Your task to perform on an android device: Go to Wikipedia Image 0: 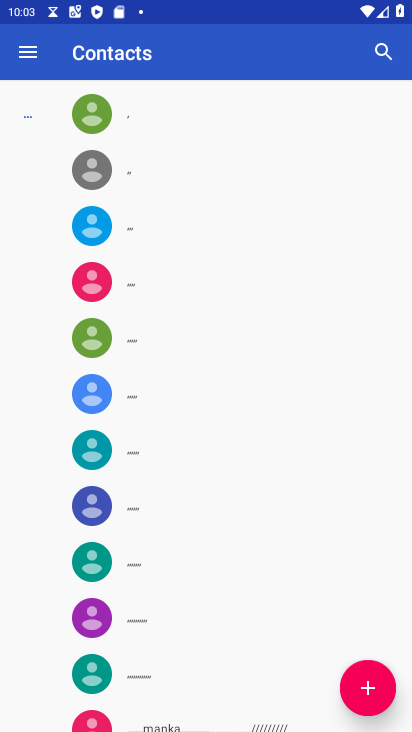
Step 0: press home button
Your task to perform on an android device: Go to Wikipedia Image 1: 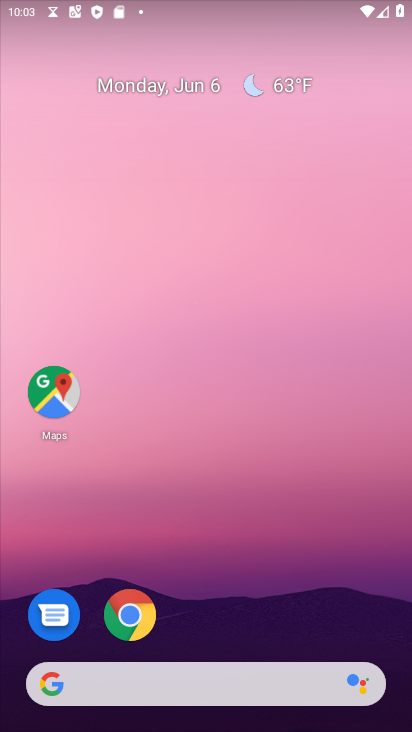
Step 1: click (126, 608)
Your task to perform on an android device: Go to Wikipedia Image 2: 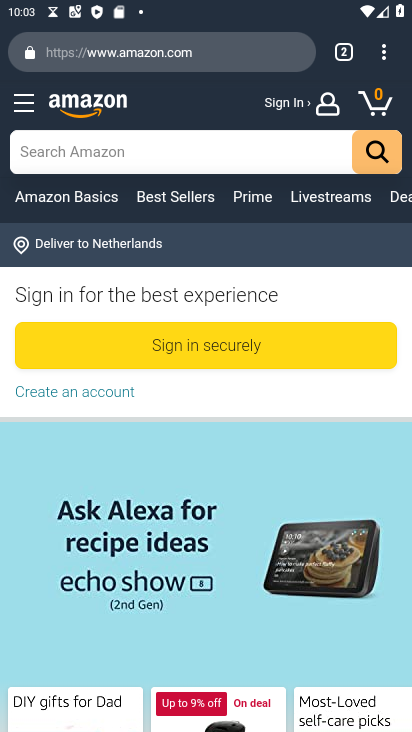
Step 2: click (338, 53)
Your task to perform on an android device: Go to Wikipedia Image 3: 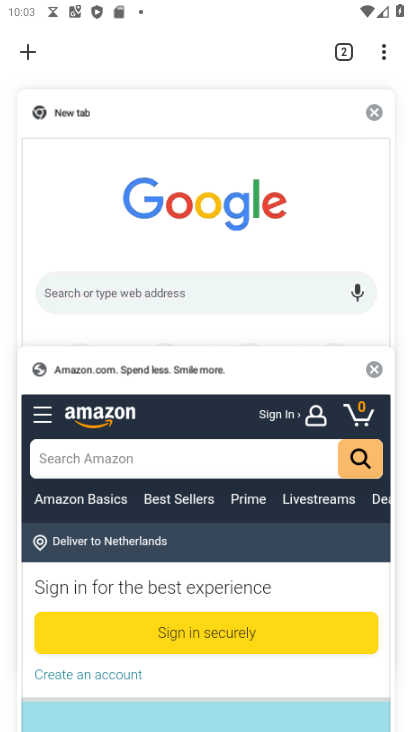
Step 3: click (374, 367)
Your task to perform on an android device: Go to Wikipedia Image 4: 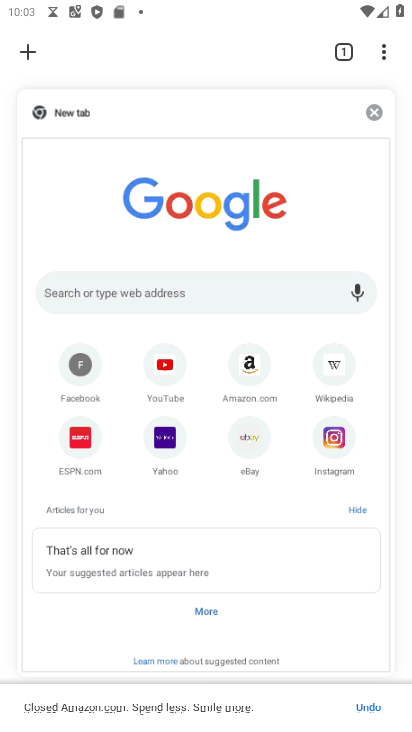
Step 4: click (253, 196)
Your task to perform on an android device: Go to Wikipedia Image 5: 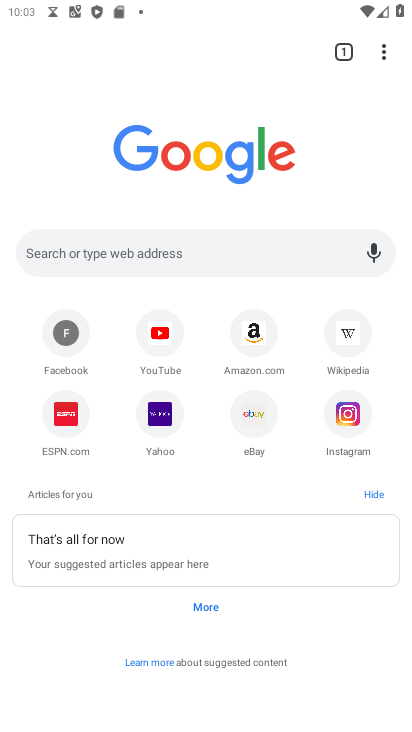
Step 5: click (346, 331)
Your task to perform on an android device: Go to Wikipedia Image 6: 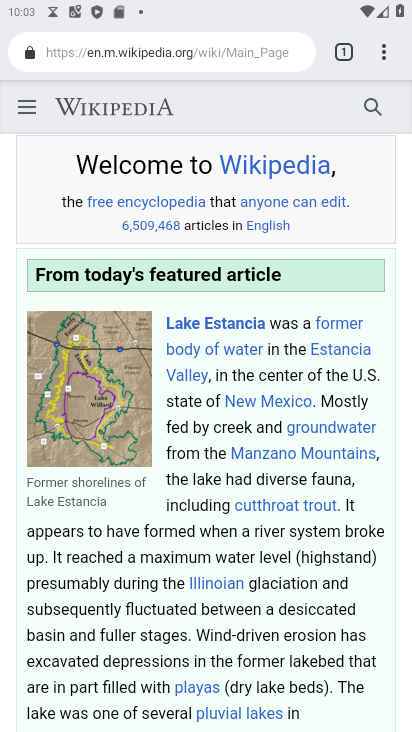
Step 6: task complete